Your task to perform on an android device: change the clock display to digital Image 0: 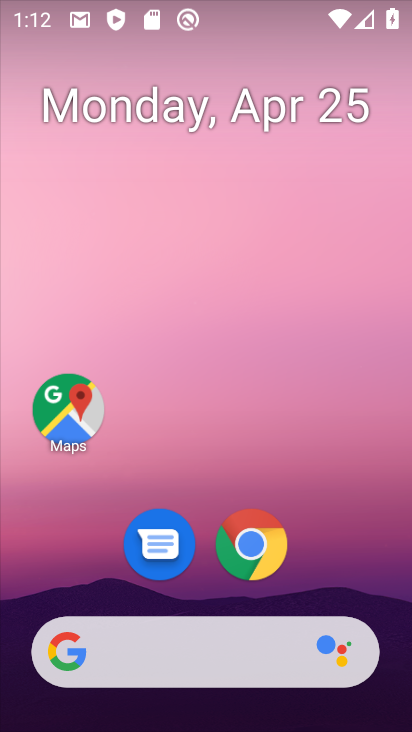
Step 0: drag from (176, 588) to (248, 47)
Your task to perform on an android device: change the clock display to digital Image 1: 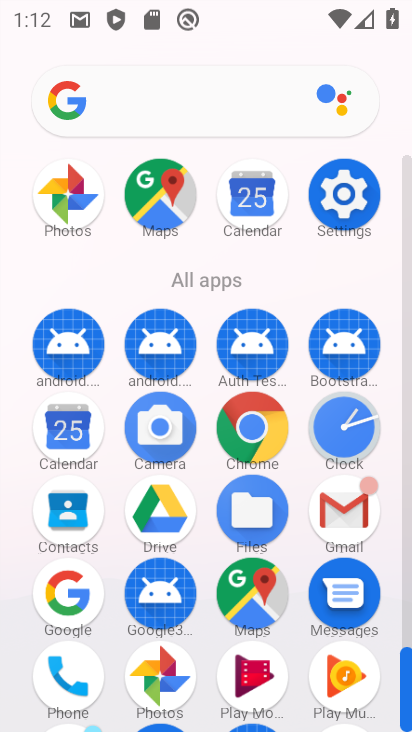
Step 1: click (353, 435)
Your task to perform on an android device: change the clock display to digital Image 2: 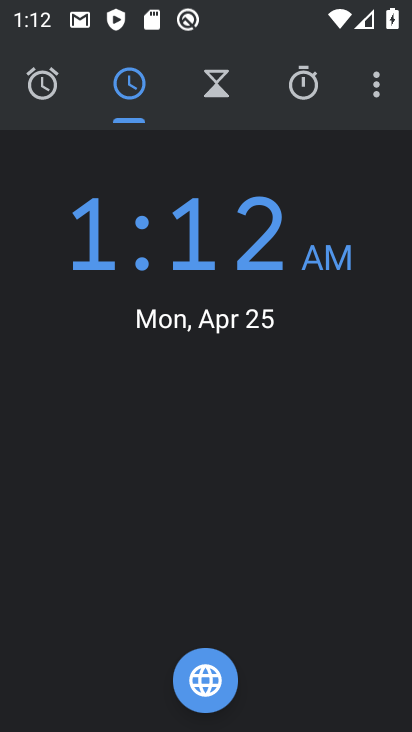
Step 2: click (369, 98)
Your task to perform on an android device: change the clock display to digital Image 3: 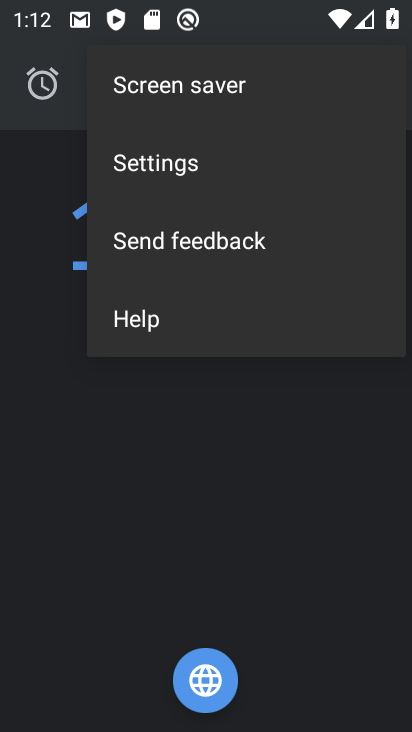
Step 3: click (320, 166)
Your task to perform on an android device: change the clock display to digital Image 4: 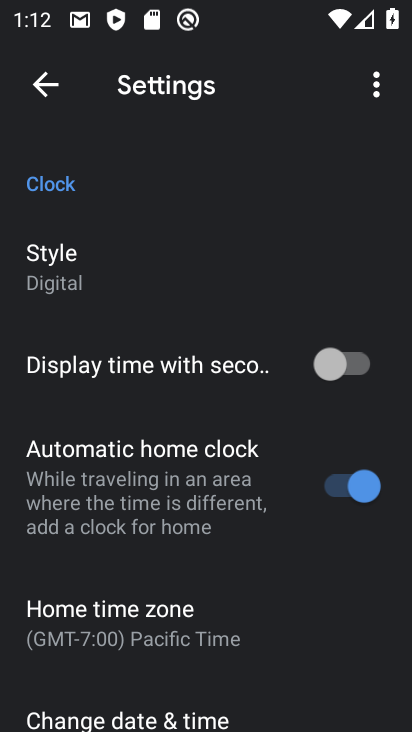
Step 4: task complete